Your task to perform on an android device: check android version Image 0: 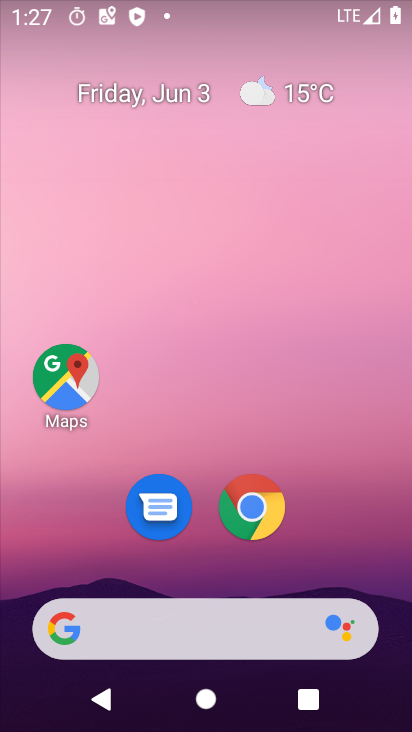
Step 0: drag from (394, 626) to (400, 52)
Your task to perform on an android device: check android version Image 1: 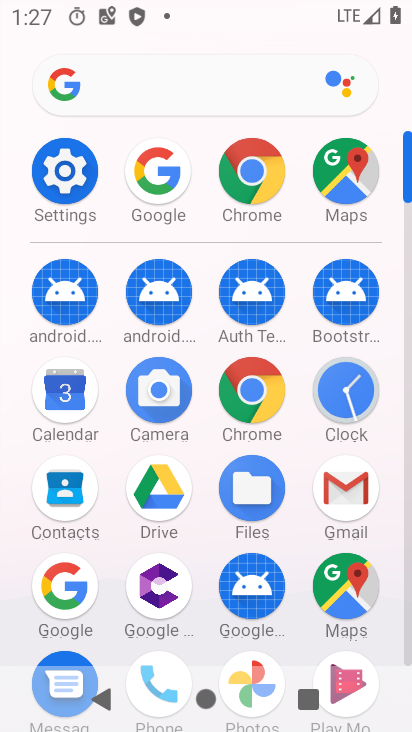
Step 1: click (63, 175)
Your task to perform on an android device: check android version Image 2: 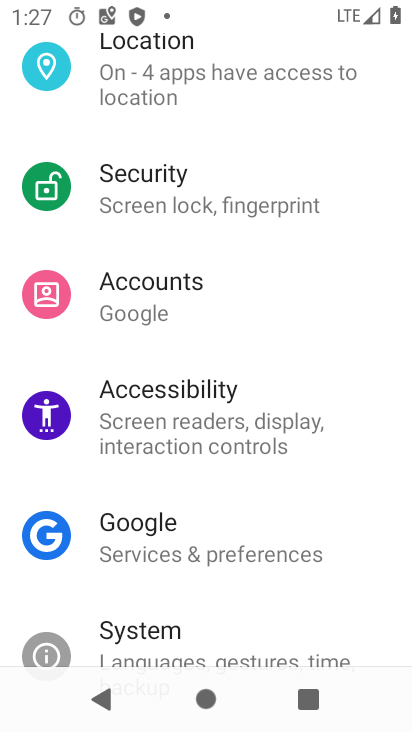
Step 2: drag from (179, 461) to (191, 47)
Your task to perform on an android device: check android version Image 3: 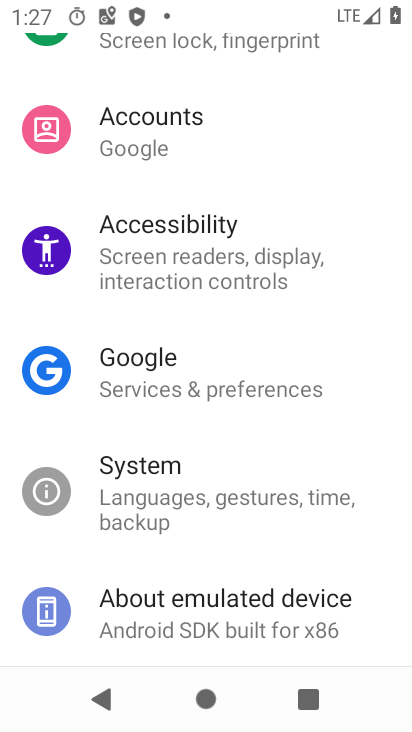
Step 3: click (137, 608)
Your task to perform on an android device: check android version Image 4: 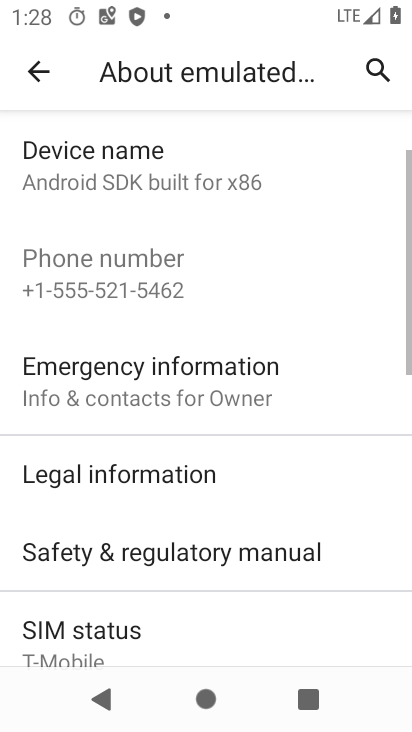
Step 4: drag from (193, 520) to (221, 66)
Your task to perform on an android device: check android version Image 5: 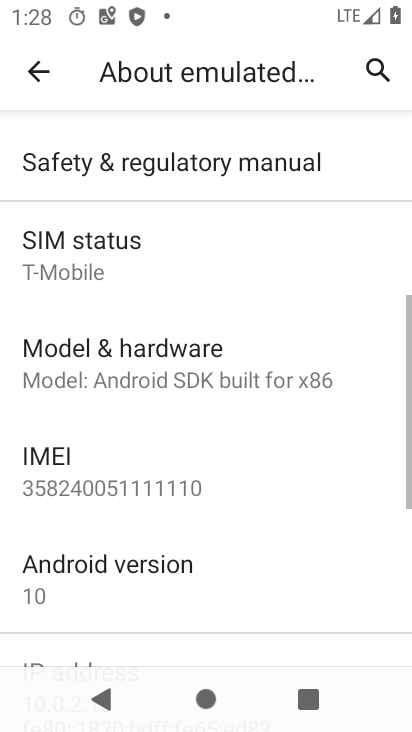
Step 5: click (146, 557)
Your task to perform on an android device: check android version Image 6: 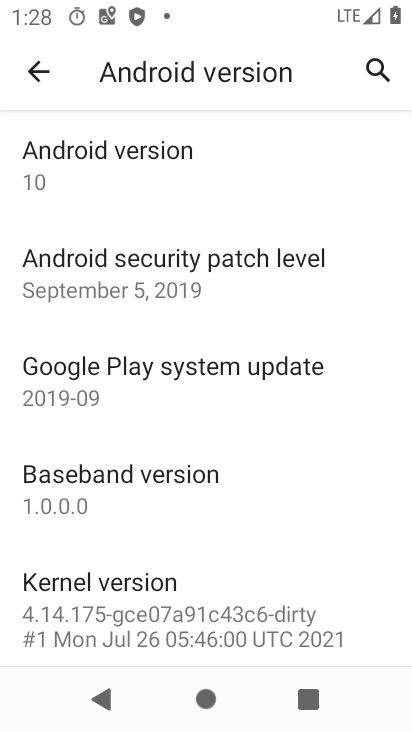
Step 6: task complete